Your task to perform on an android device: snooze an email in the gmail app Image 0: 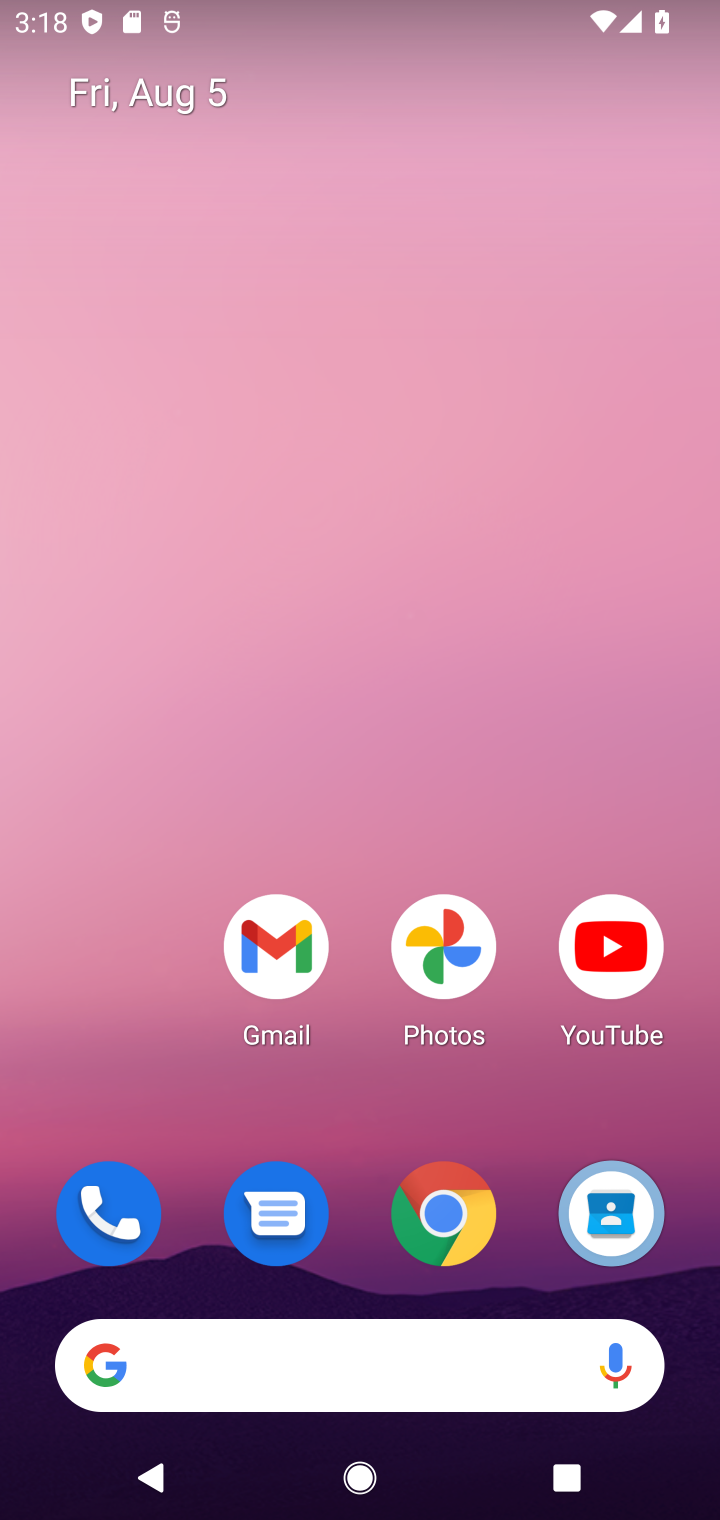
Step 0: click (271, 952)
Your task to perform on an android device: snooze an email in the gmail app Image 1: 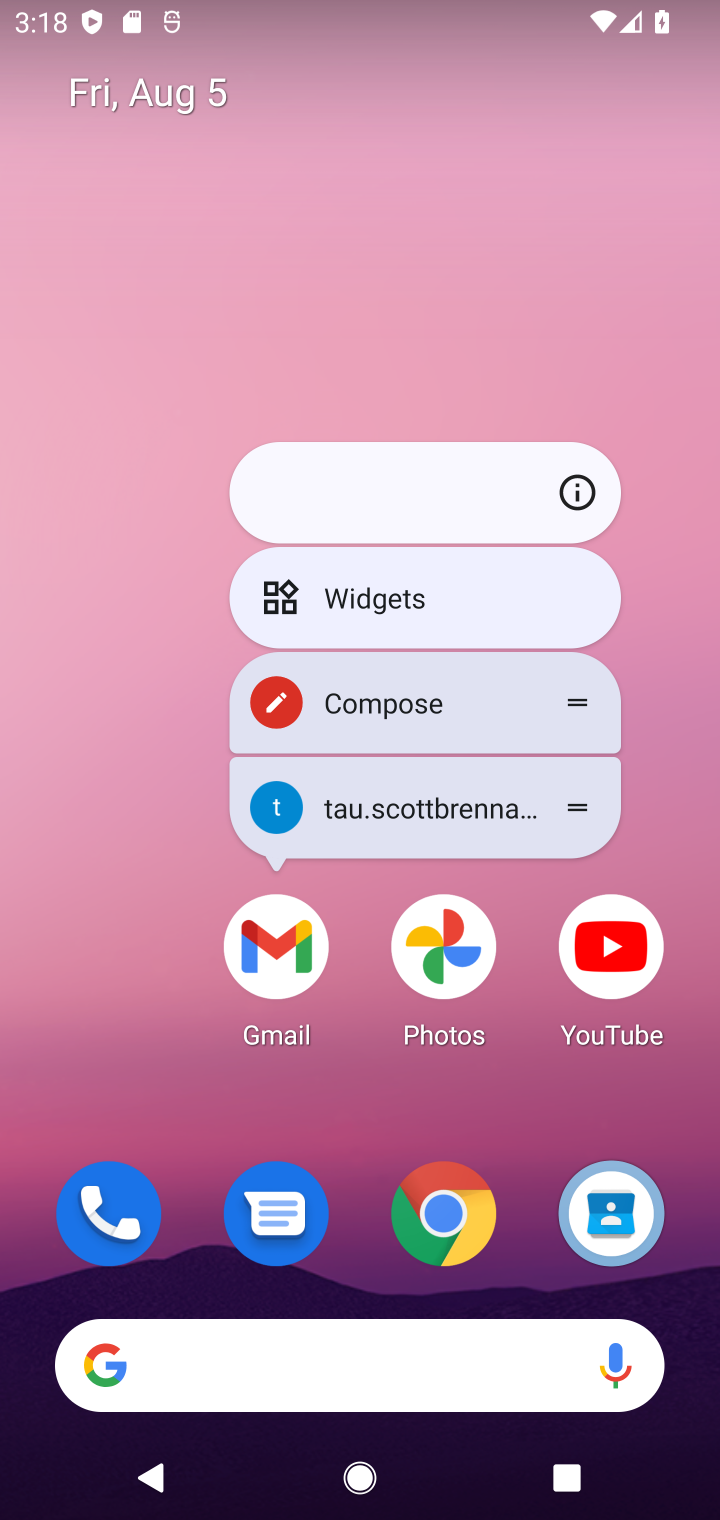
Step 1: click (271, 956)
Your task to perform on an android device: snooze an email in the gmail app Image 2: 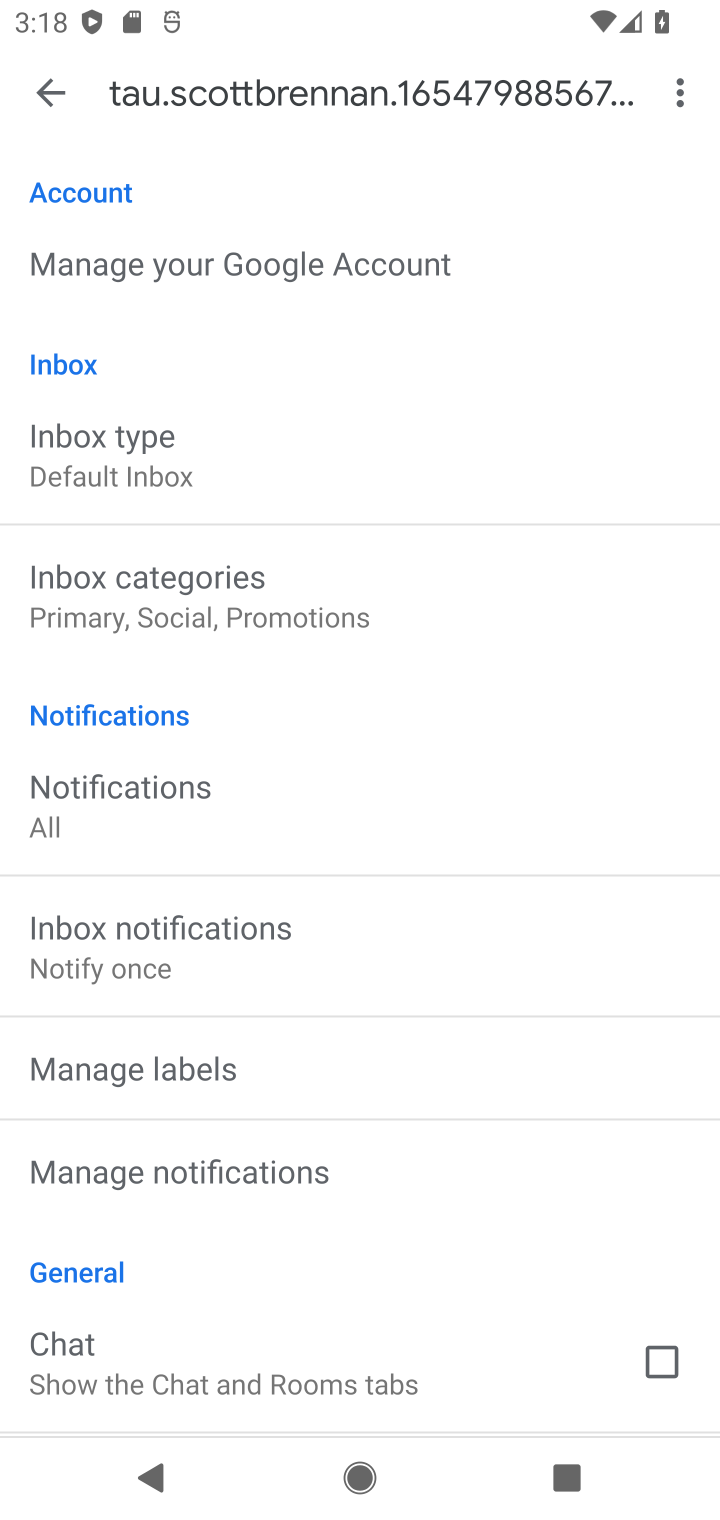
Step 2: click (63, 90)
Your task to perform on an android device: snooze an email in the gmail app Image 3: 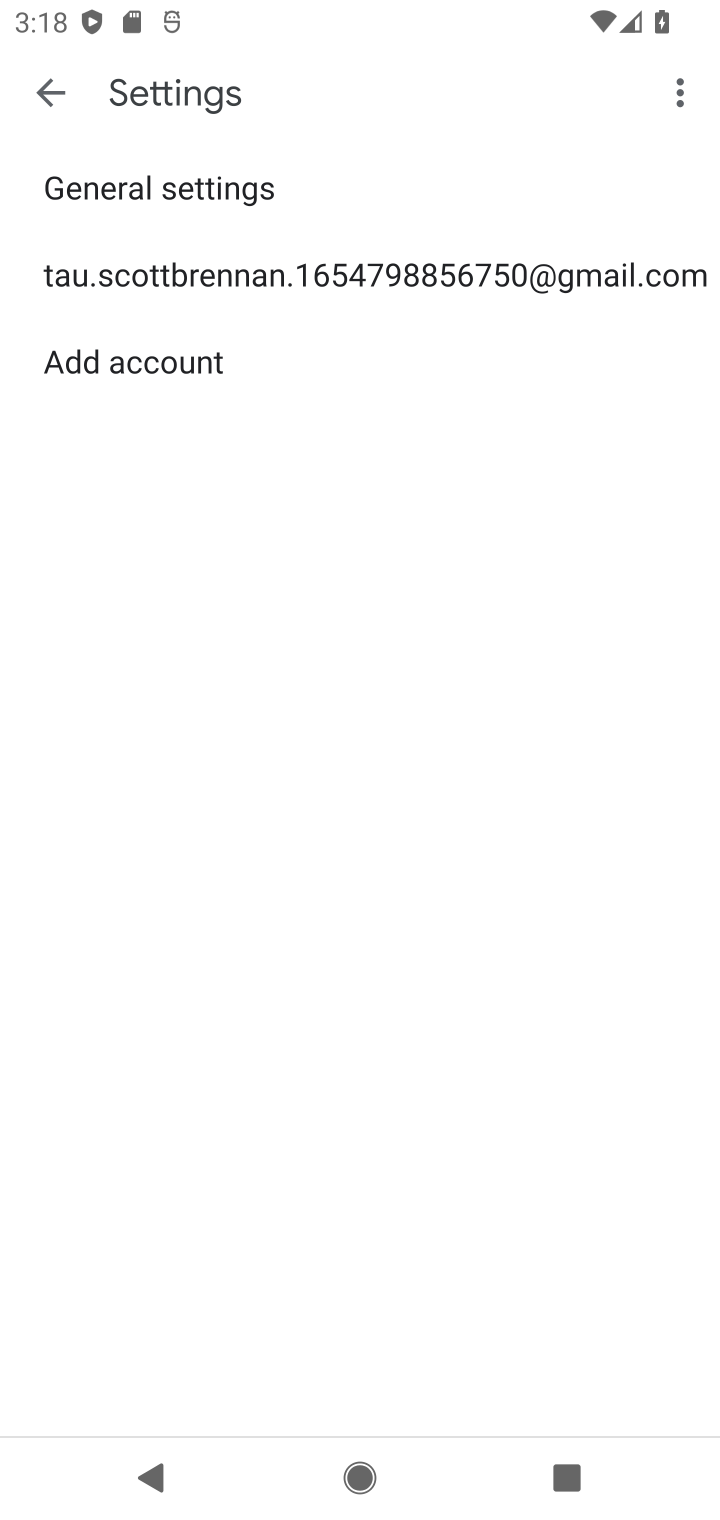
Step 3: click (47, 90)
Your task to perform on an android device: snooze an email in the gmail app Image 4: 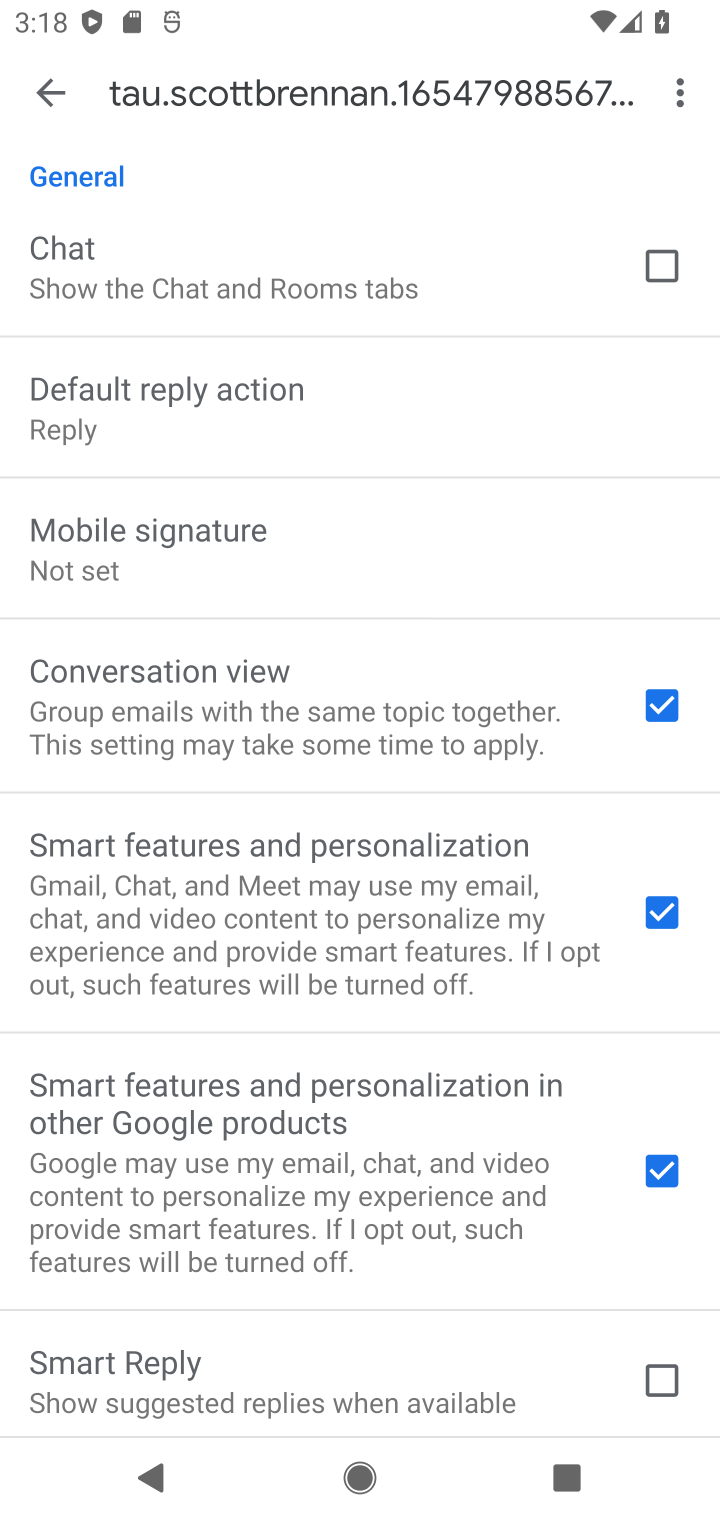
Step 4: click (47, 93)
Your task to perform on an android device: snooze an email in the gmail app Image 5: 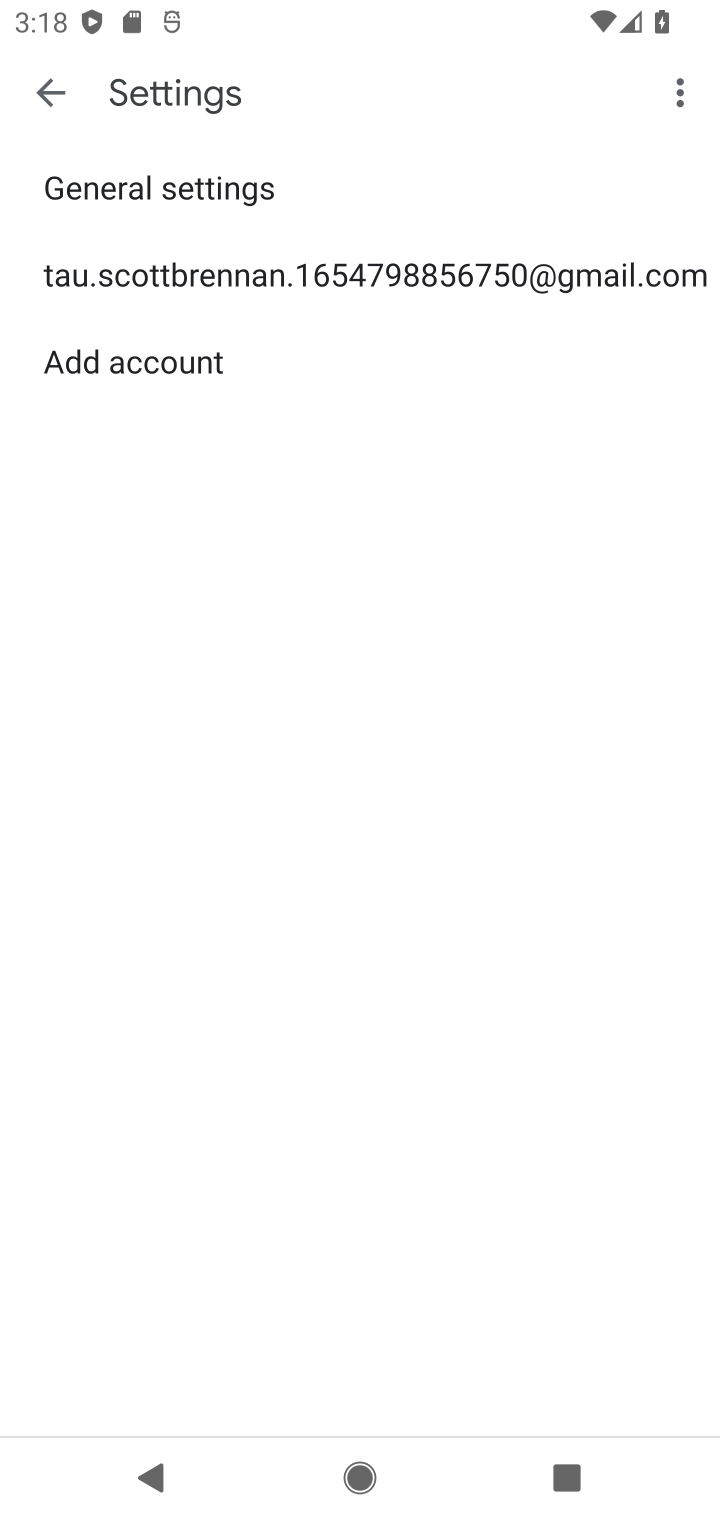
Step 5: click (47, 90)
Your task to perform on an android device: snooze an email in the gmail app Image 6: 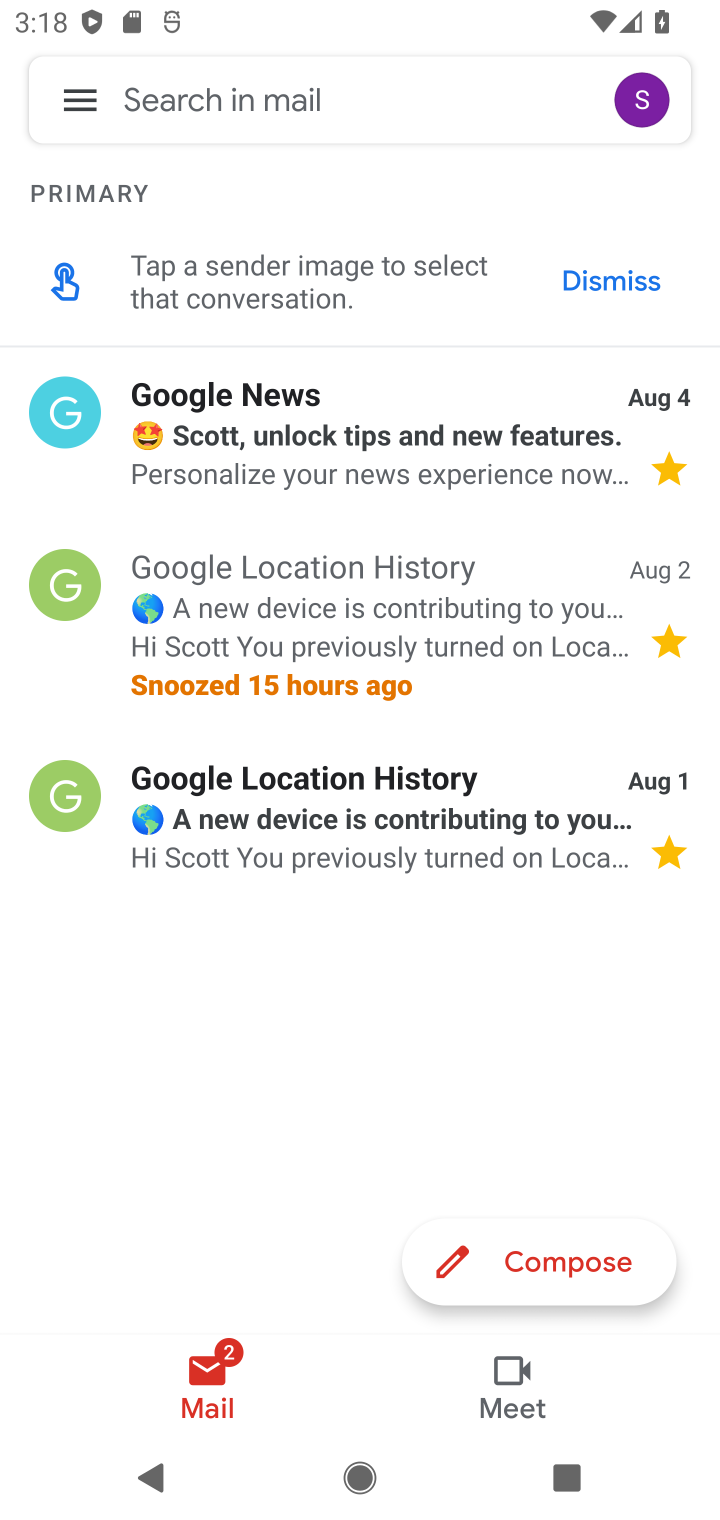
Step 6: click (324, 814)
Your task to perform on an android device: snooze an email in the gmail app Image 7: 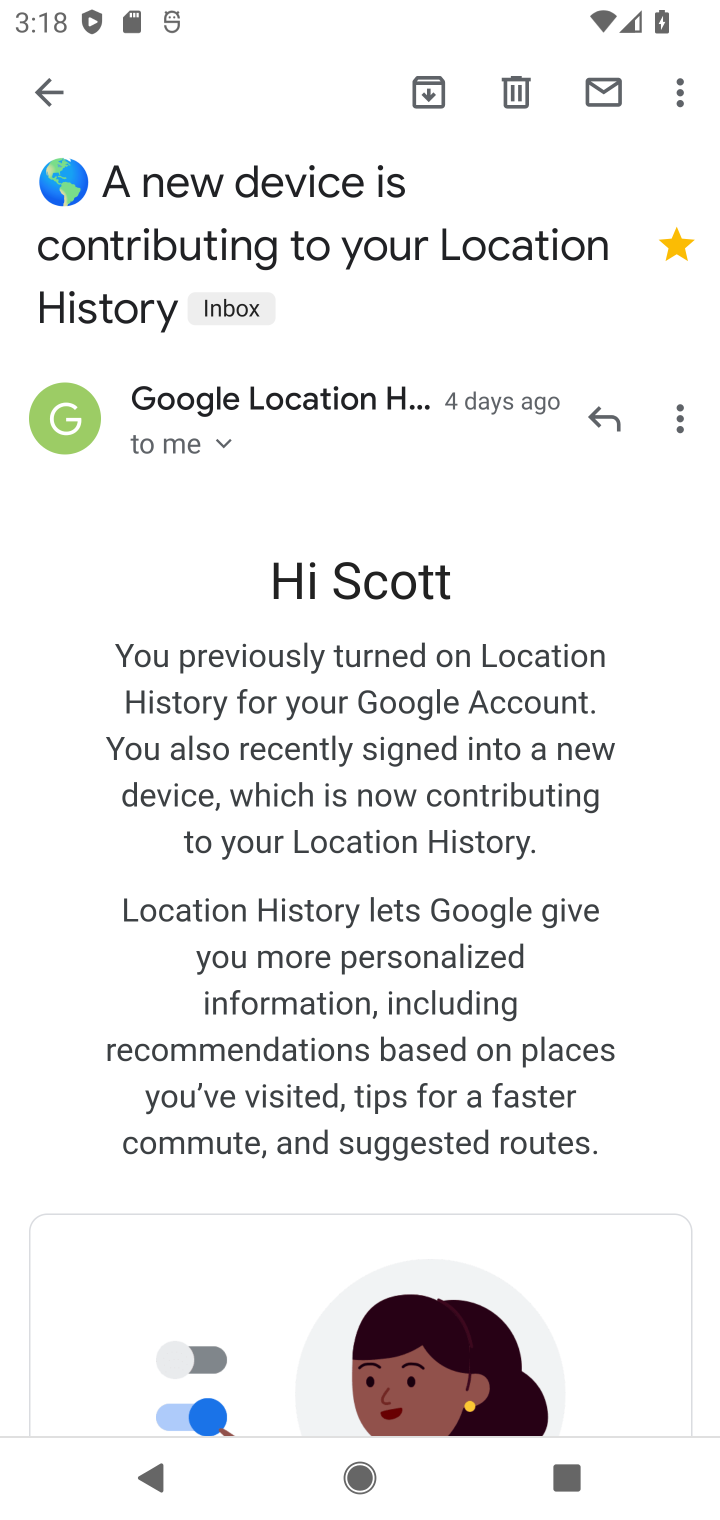
Step 7: click (679, 91)
Your task to perform on an android device: snooze an email in the gmail app Image 8: 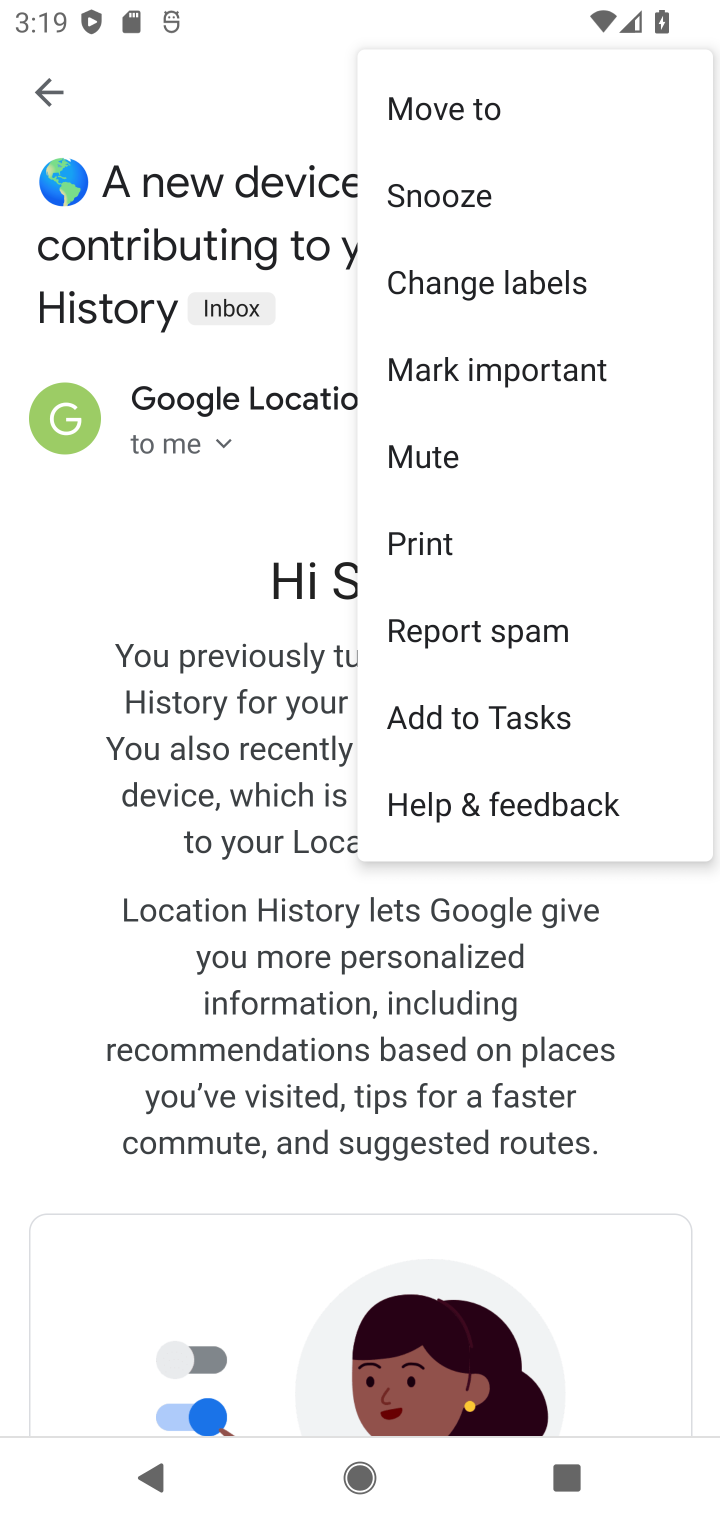
Step 8: click (501, 182)
Your task to perform on an android device: snooze an email in the gmail app Image 9: 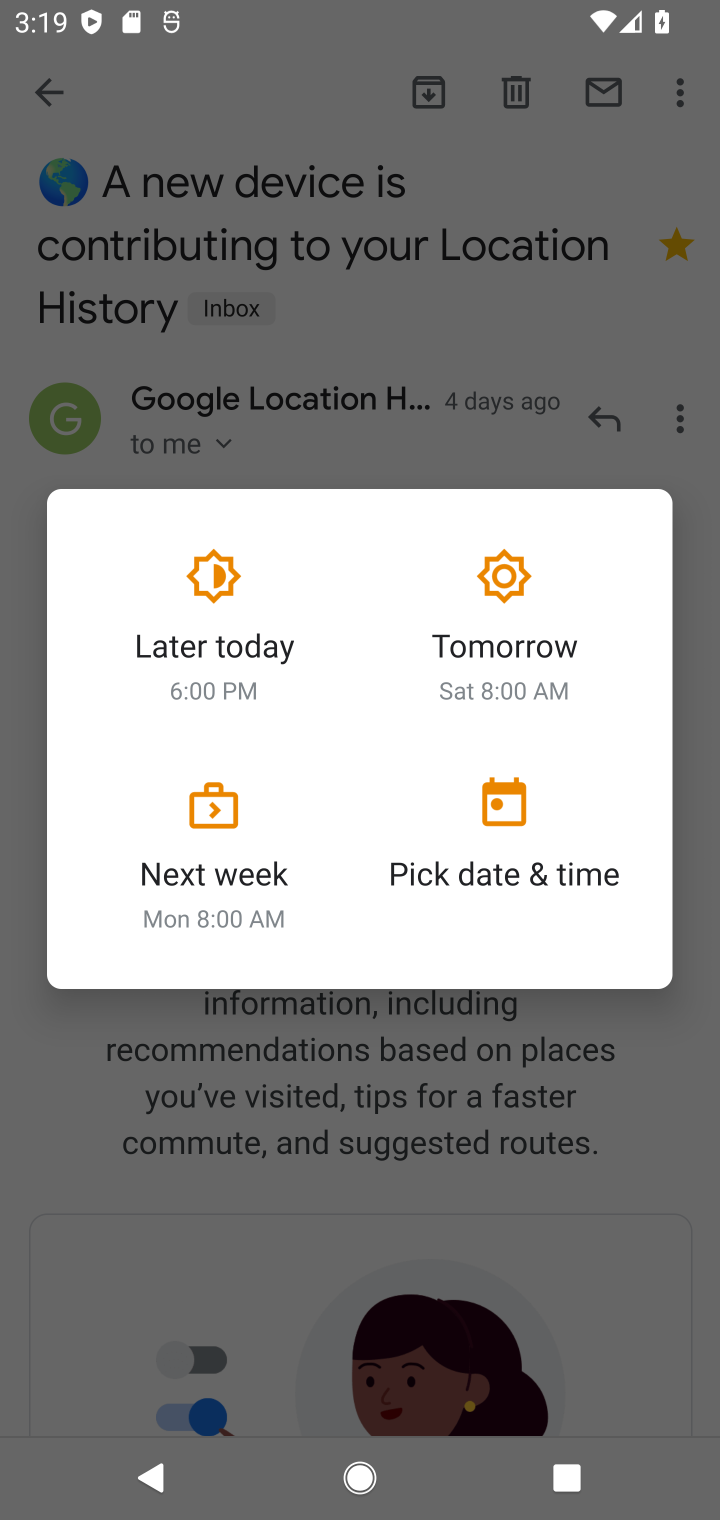
Step 9: click (229, 612)
Your task to perform on an android device: snooze an email in the gmail app Image 10: 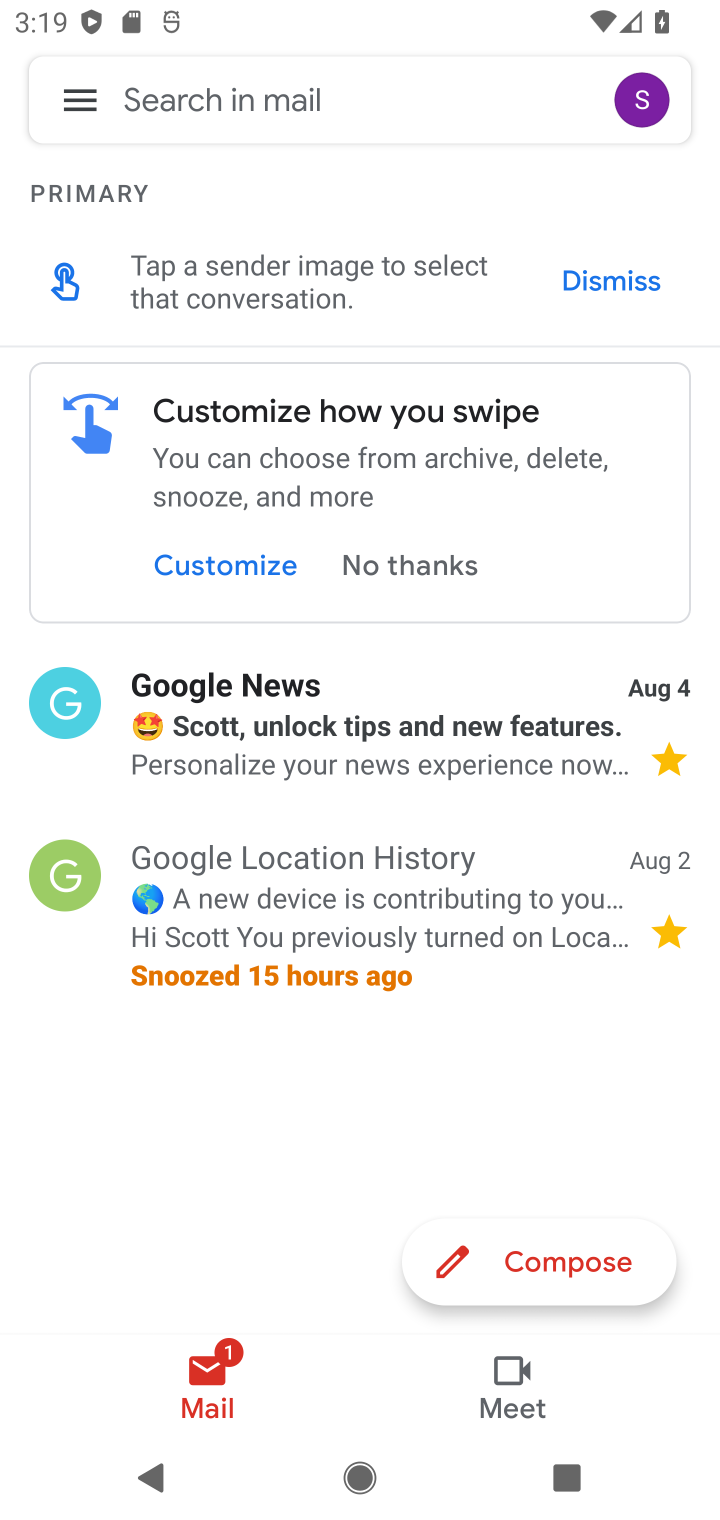
Step 10: task complete